Your task to perform on an android device: Search for Mexican restaurants on Maps Image 0: 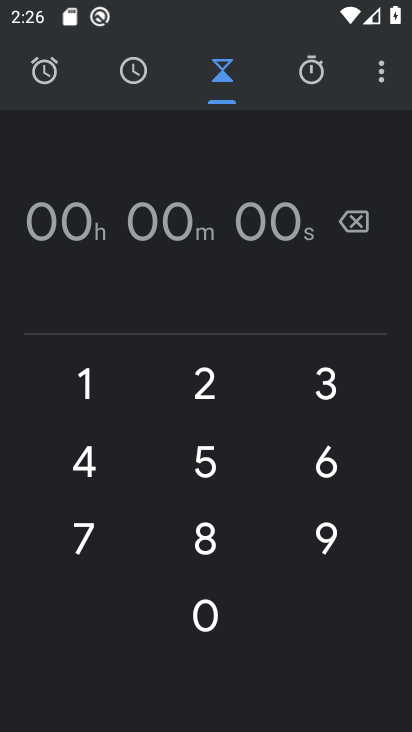
Step 0: press home button
Your task to perform on an android device: Search for Mexican restaurants on Maps Image 1: 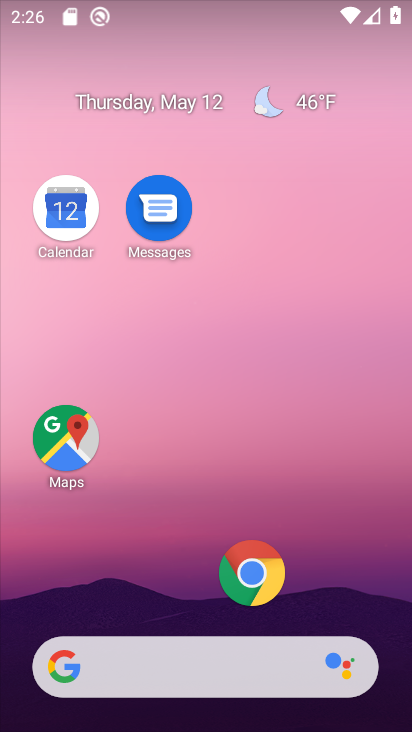
Step 1: drag from (209, 607) to (314, 163)
Your task to perform on an android device: Search for Mexican restaurants on Maps Image 2: 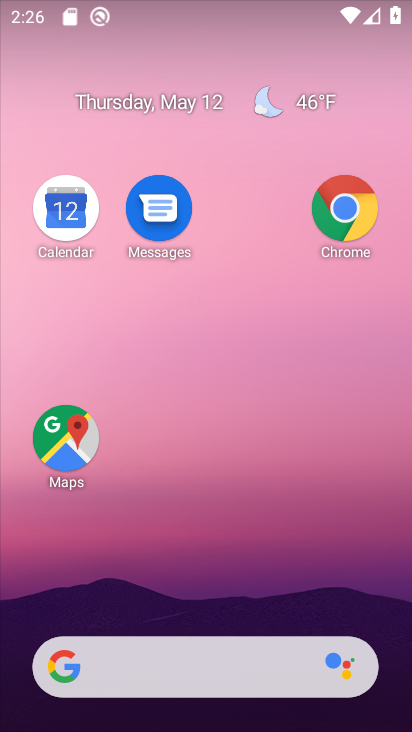
Step 2: drag from (203, 556) to (249, 5)
Your task to perform on an android device: Search for Mexican restaurants on Maps Image 3: 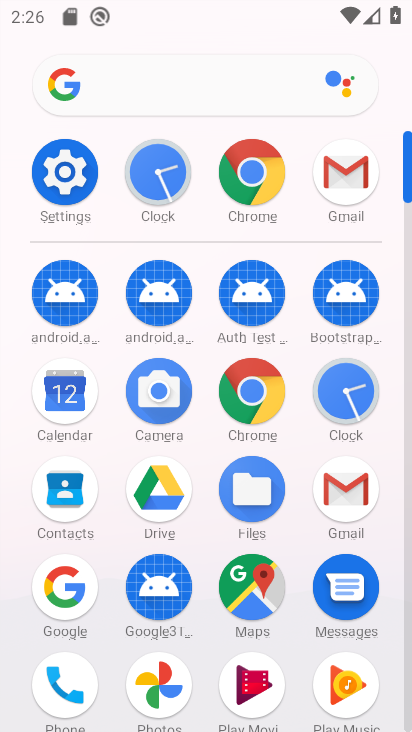
Step 3: click (235, 588)
Your task to perform on an android device: Search for Mexican restaurants on Maps Image 4: 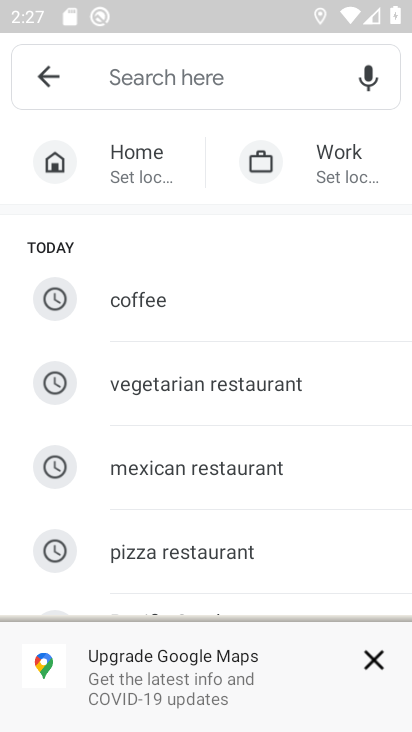
Step 4: click (200, 482)
Your task to perform on an android device: Search for Mexican restaurants on Maps Image 5: 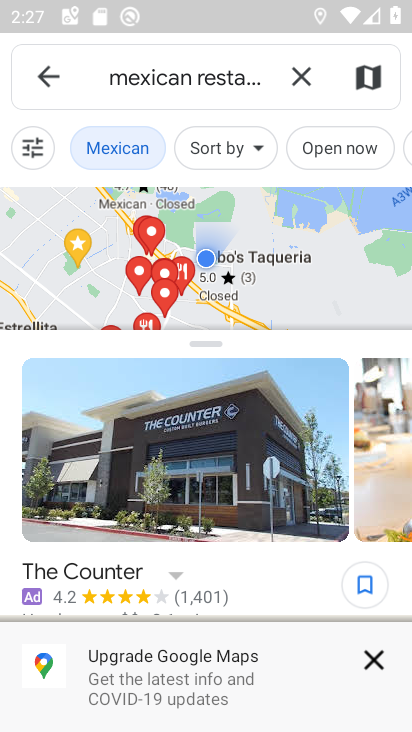
Step 5: task complete